Your task to perform on an android device: Search for seafood restaurants on Google Maps Image 0: 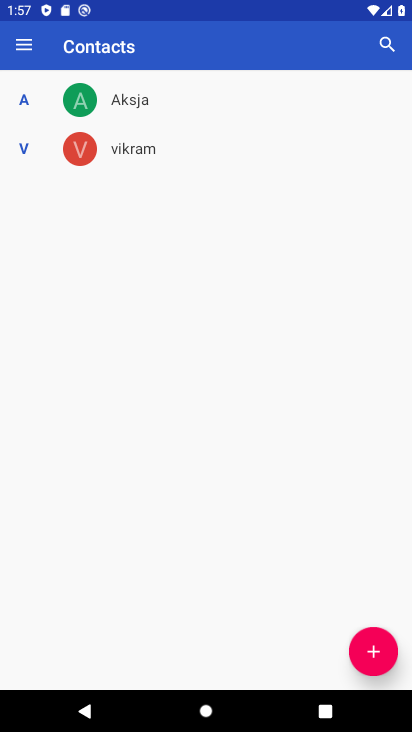
Step 0: press home button
Your task to perform on an android device: Search for seafood restaurants on Google Maps Image 1: 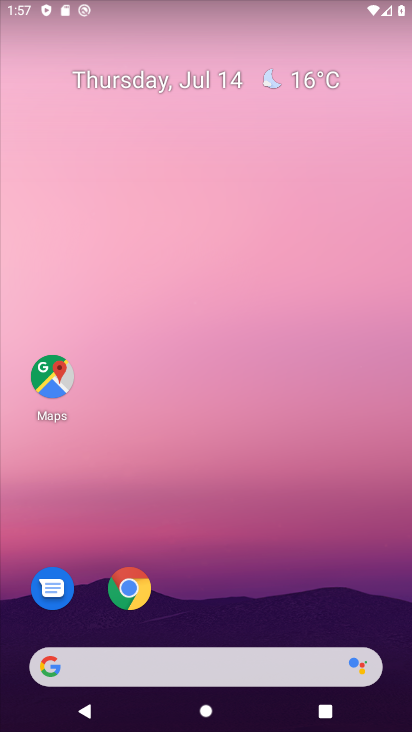
Step 1: click (57, 384)
Your task to perform on an android device: Search for seafood restaurants on Google Maps Image 2: 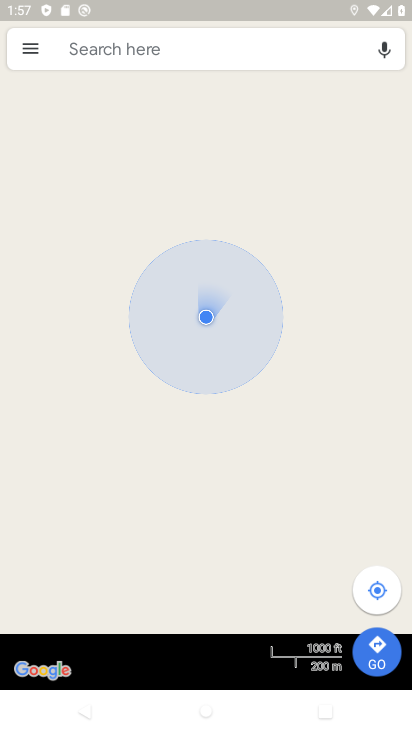
Step 2: click (168, 47)
Your task to perform on an android device: Search for seafood restaurants on Google Maps Image 3: 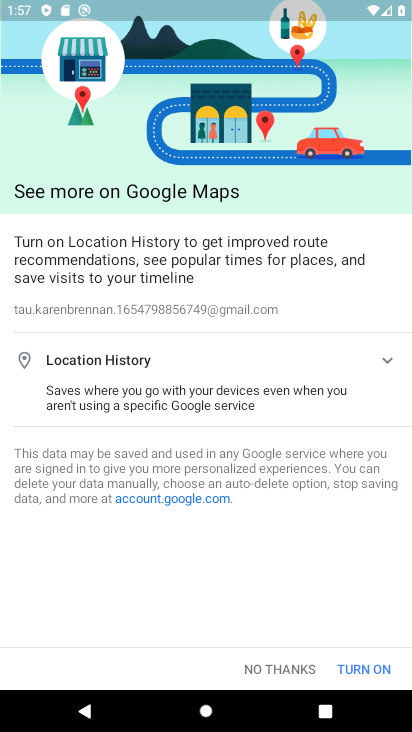
Step 3: type "seafood restaurants"
Your task to perform on an android device: Search for seafood restaurants on Google Maps Image 4: 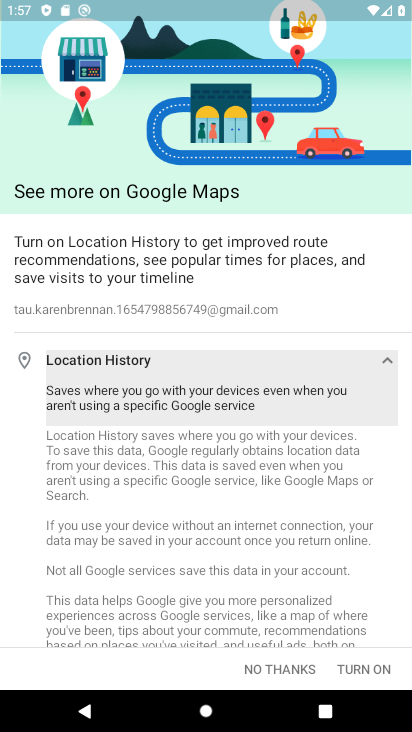
Step 4: click (290, 668)
Your task to perform on an android device: Search for seafood restaurants on Google Maps Image 5: 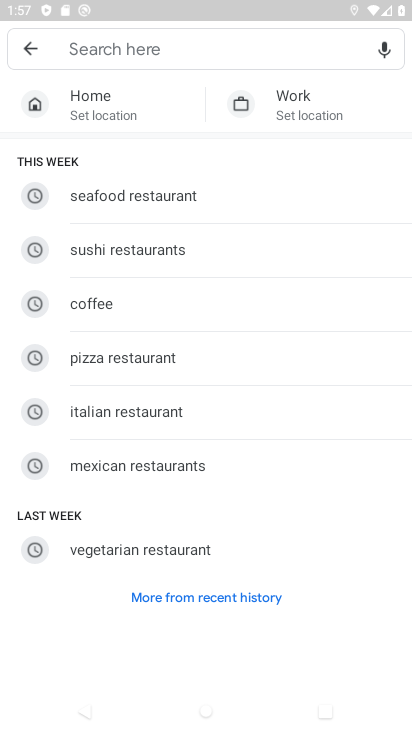
Step 5: click (206, 62)
Your task to perform on an android device: Search for seafood restaurants on Google Maps Image 6: 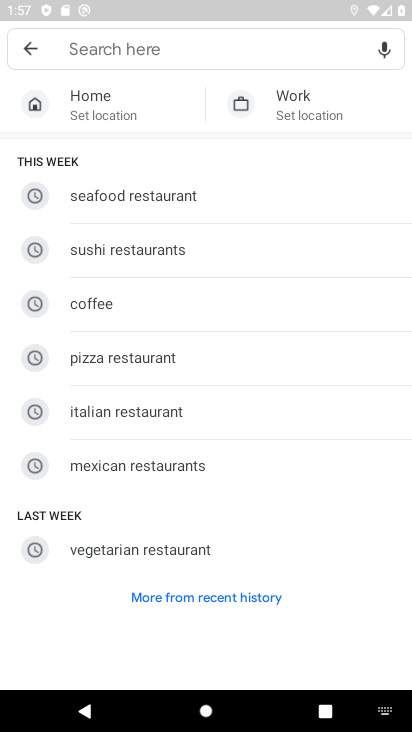
Step 6: type "seafood restaurants"
Your task to perform on an android device: Search for seafood restaurants on Google Maps Image 7: 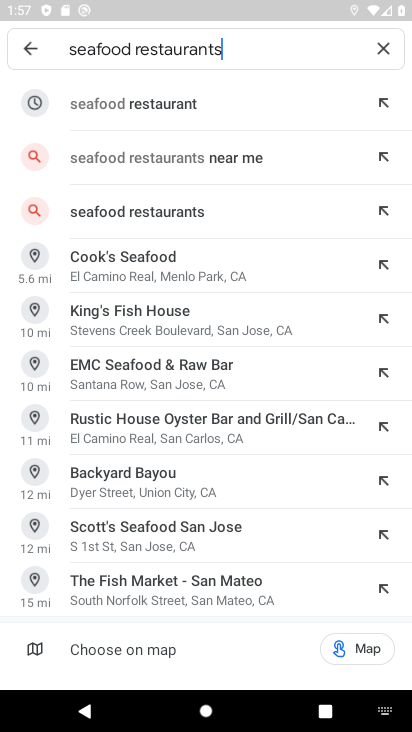
Step 7: click (200, 118)
Your task to perform on an android device: Search for seafood restaurants on Google Maps Image 8: 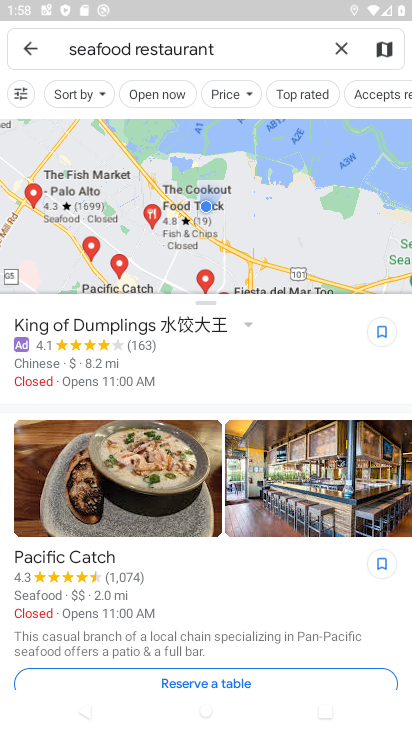
Step 8: task complete